Your task to perform on an android device: Search for pizza restaurants on Maps Image 0: 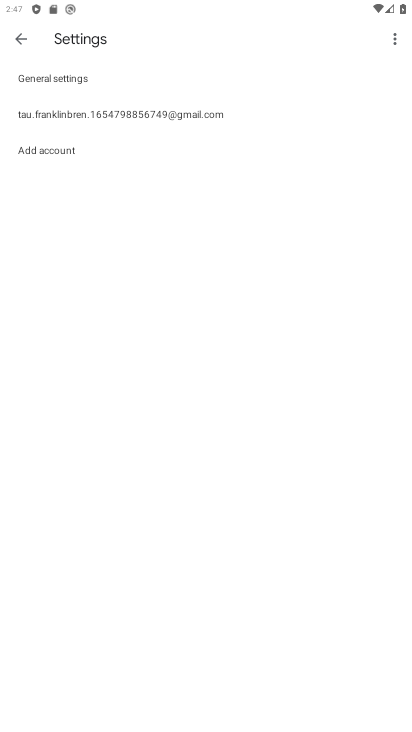
Step 0: press home button
Your task to perform on an android device: Search for pizza restaurants on Maps Image 1: 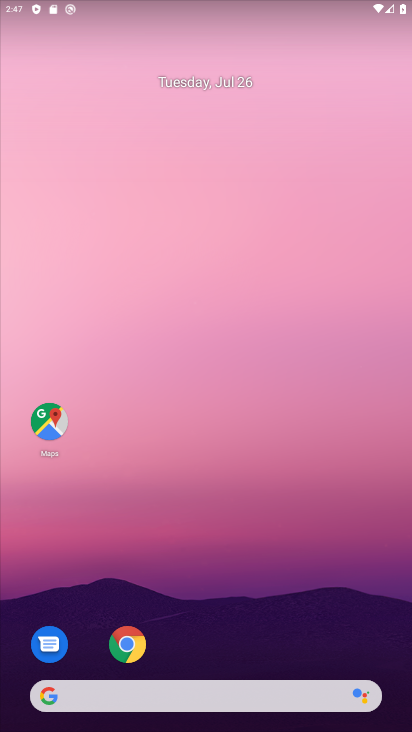
Step 1: drag from (233, 418) to (235, 113)
Your task to perform on an android device: Search for pizza restaurants on Maps Image 2: 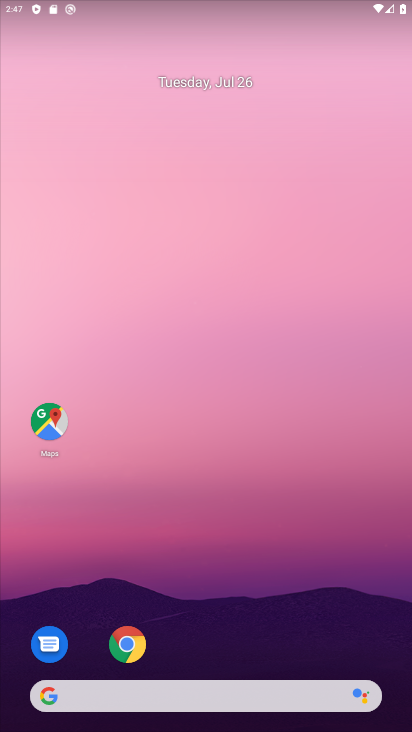
Step 2: drag from (195, 678) to (182, 87)
Your task to perform on an android device: Search for pizza restaurants on Maps Image 3: 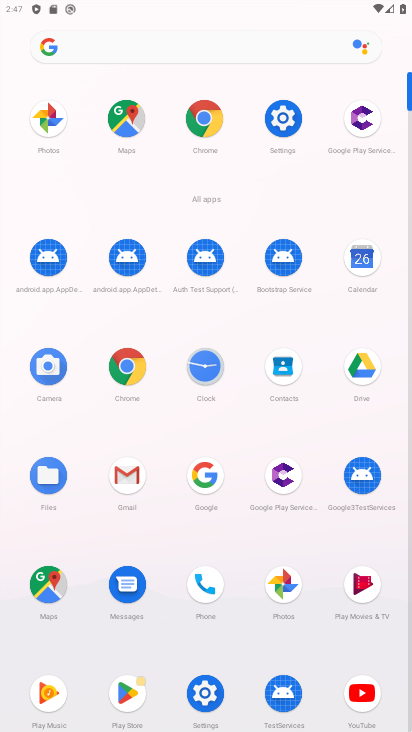
Step 3: click (39, 593)
Your task to perform on an android device: Search for pizza restaurants on Maps Image 4: 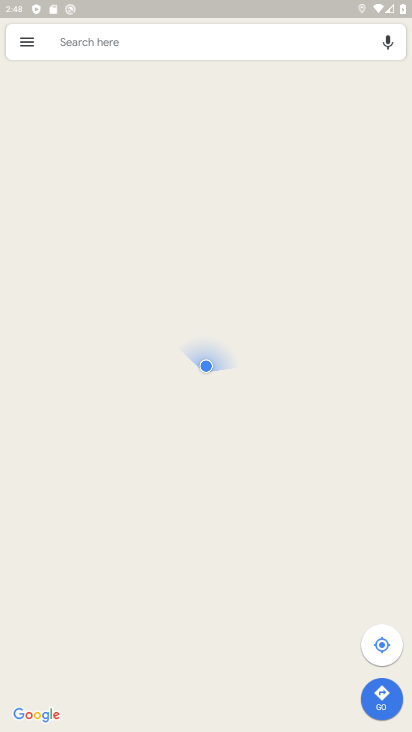
Step 4: click (143, 45)
Your task to perform on an android device: Search for pizza restaurants on Maps Image 5: 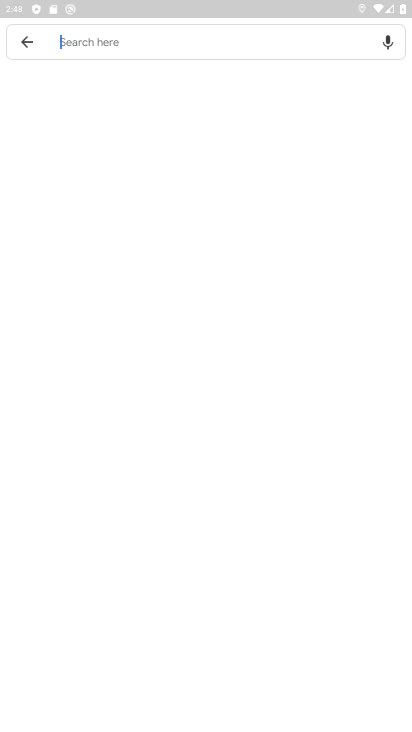
Step 5: click (96, 43)
Your task to perform on an android device: Search for pizza restaurants on Maps Image 6: 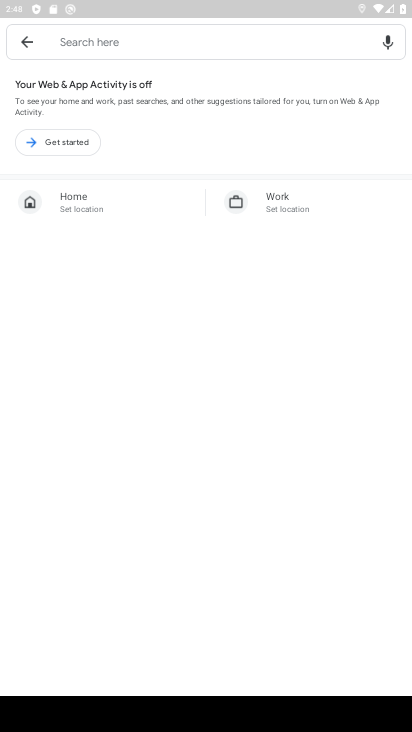
Step 6: click (95, 85)
Your task to perform on an android device: Search for pizza restaurants on Maps Image 7: 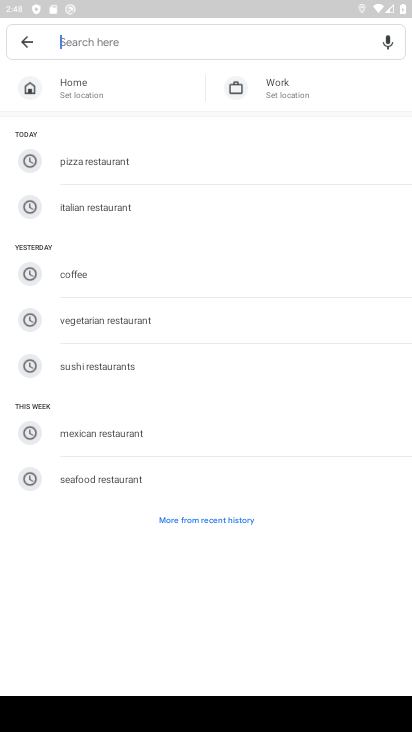
Step 7: click (100, 157)
Your task to perform on an android device: Search for pizza restaurants on Maps Image 8: 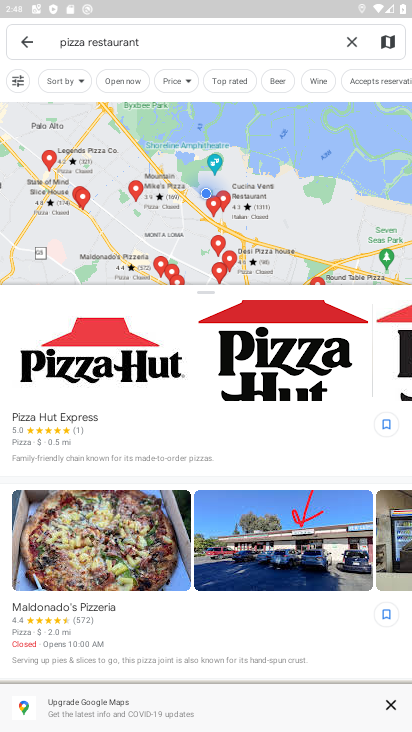
Step 8: task complete